Your task to perform on an android device: Open the calendar and show me this week's events Image 0: 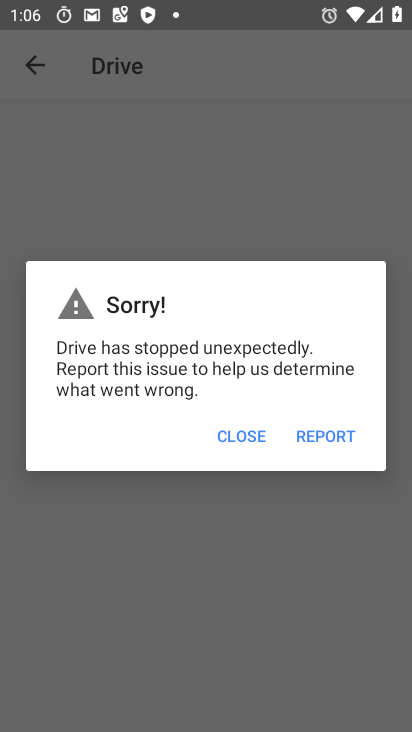
Step 0: drag from (251, 700) to (223, 187)
Your task to perform on an android device: Open the calendar and show me this week's events Image 1: 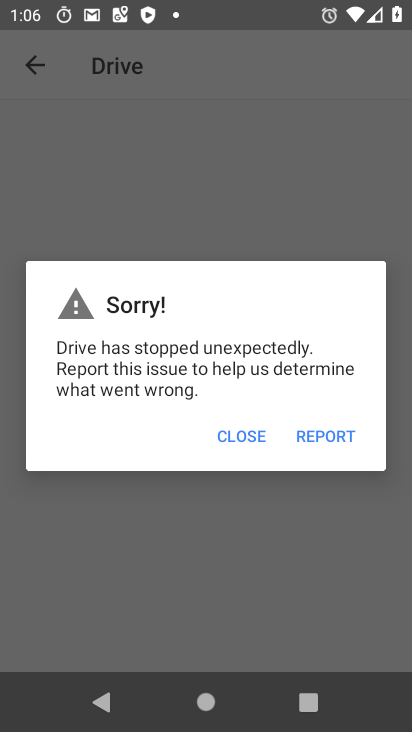
Step 1: press home button
Your task to perform on an android device: Open the calendar and show me this week's events Image 2: 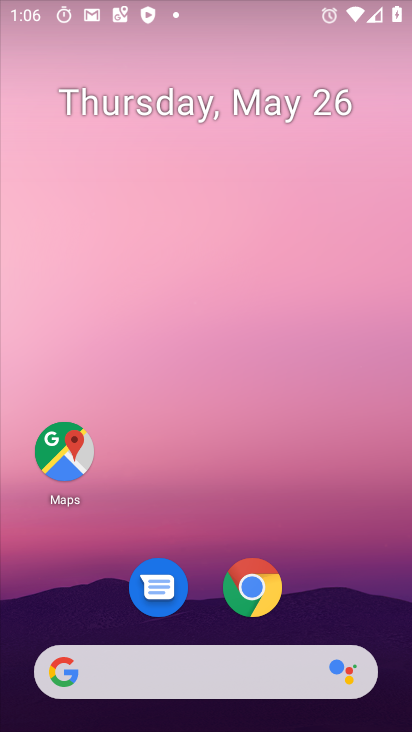
Step 2: drag from (265, 707) to (142, 78)
Your task to perform on an android device: Open the calendar and show me this week's events Image 3: 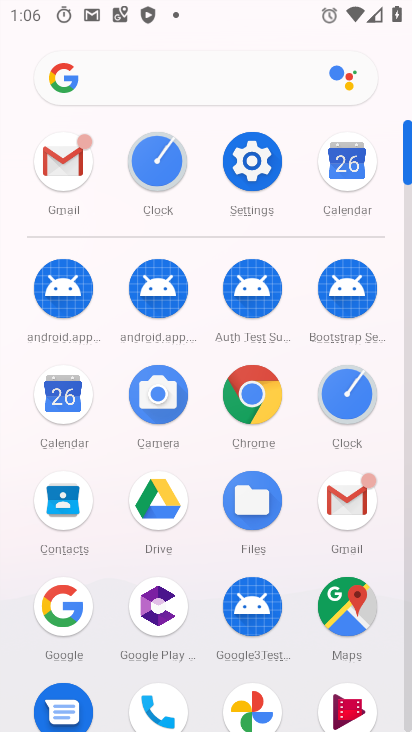
Step 3: click (75, 377)
Your task to perform on an android device: Open the calendar and show me this week's events Image 4: 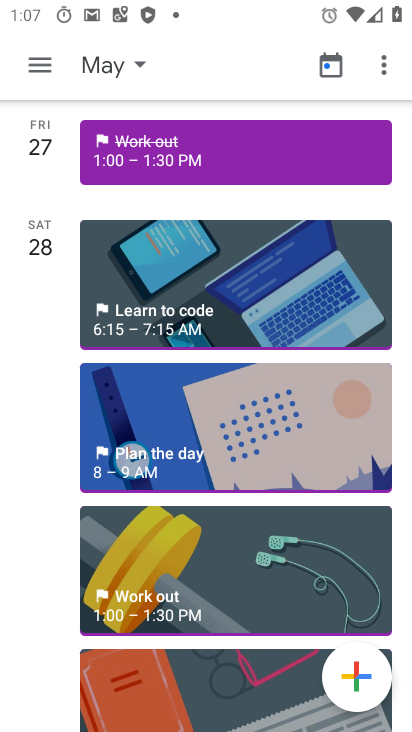
Step 4: task complete